Your task to perform on an android device: Open Amazon Image 0: 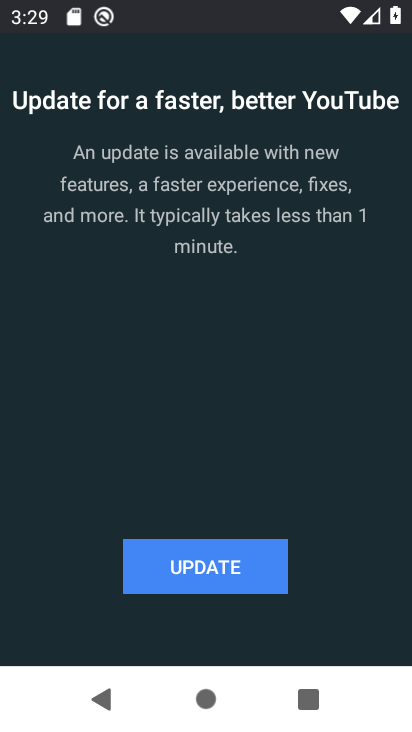
Step 0: press home button
Your task to perform on an android device: Open Amazon Image 1: 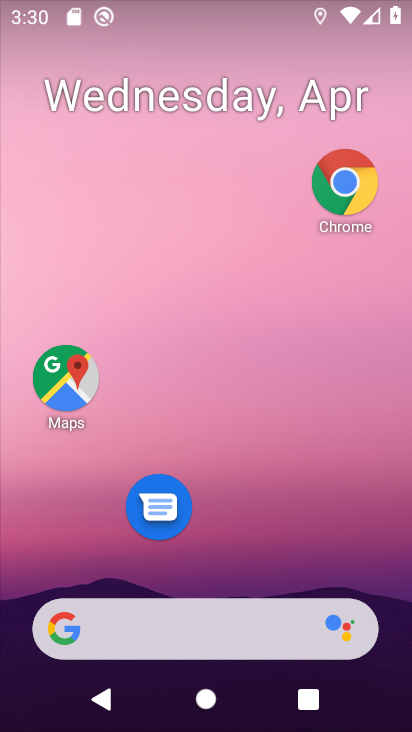
Step 1: click (346, 189)
Your task to perform on an android device: Open Amazon Image 2: 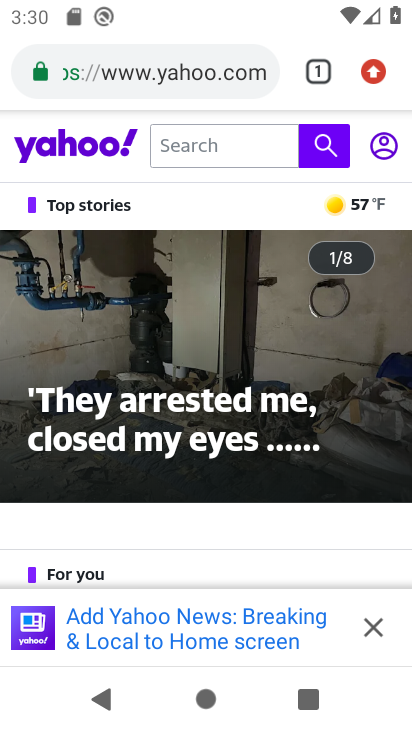
Step 2: click (320, 69)
Your task to perform on an android device: Open Amazon Image 3: 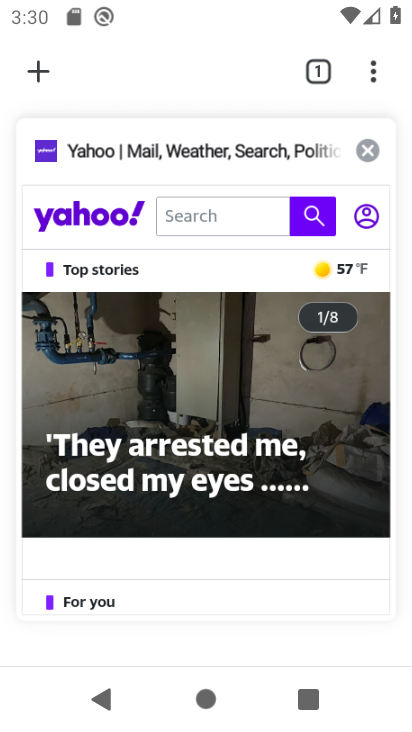
Step 3: click (34, 64)
Your task to perform on an android device: Open Amazon Image 4: 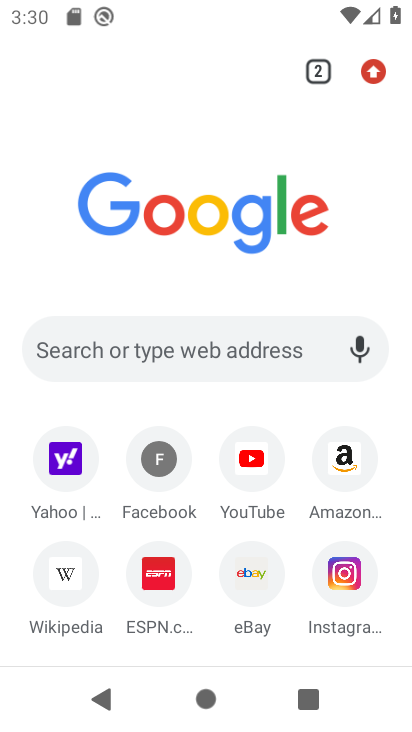
Step 4: click (350, 446)
Your task to perform on an android device: Open Amazon Image 5: 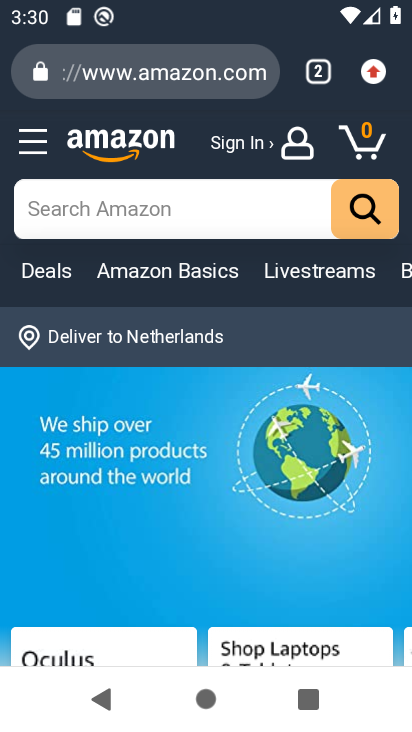
Step 5: task complete